Your task to perform on an android device: Go to privacy settings Image 0: 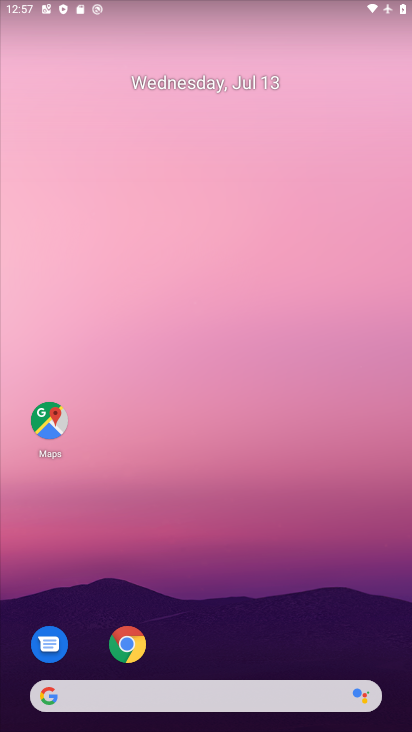
Step 0: press home button
Your task to perform on an android device: Go to privacy settings Image 1: 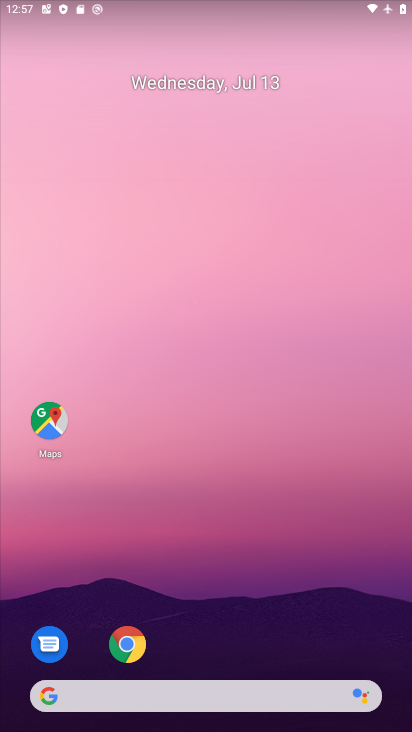
Step 1: drag from (300, 593) to (236, 67)
Your task to perform on an android device: Go to privacy settings Image 2: 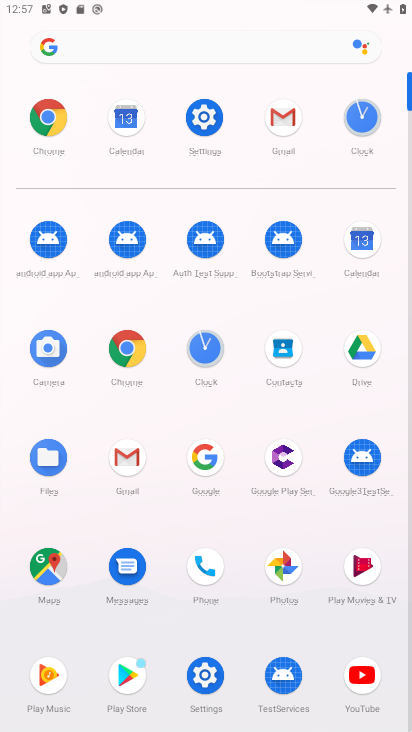
Step 2: click (214, 114)
Your task to perform on an android device: Go to privacy settings Image 3: 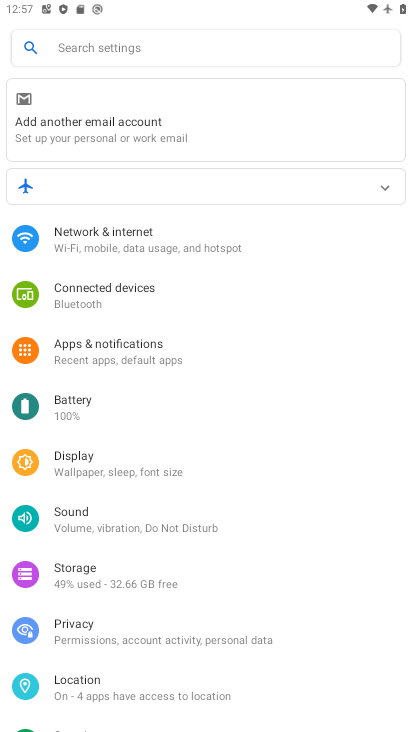
Step 3: click (127, 633)
Your task to perform on an android device: Go to privacy settings Image 4: 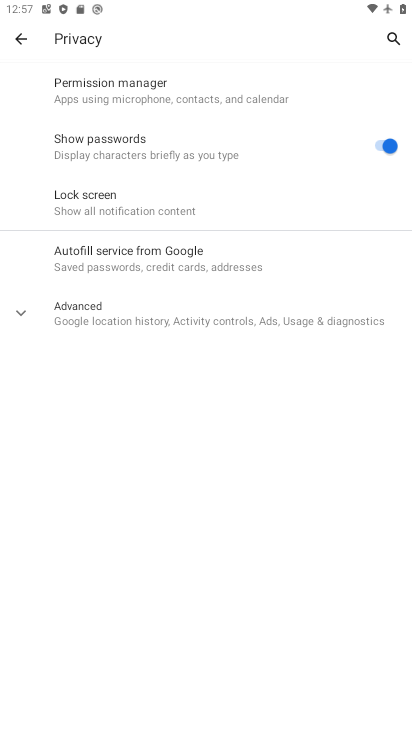
Step 4: task complete